Your task to perform on an android device: Search for seafood restaurants on Google Maps Image 0: 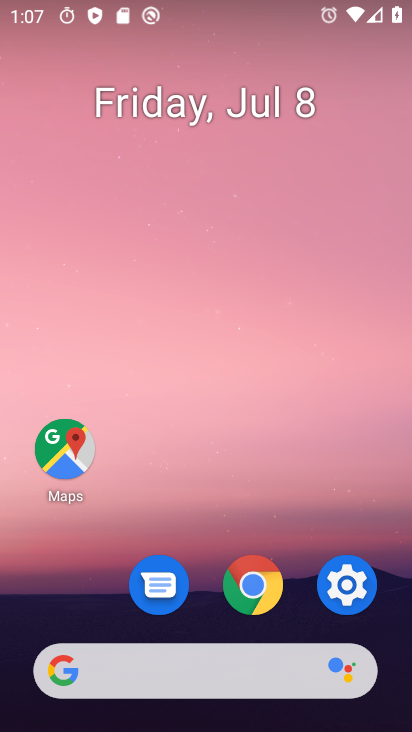
Step 0: click (87, 465)
Your task to perform on an android device: Search for seafood restaurants on Google Maps Image 1: 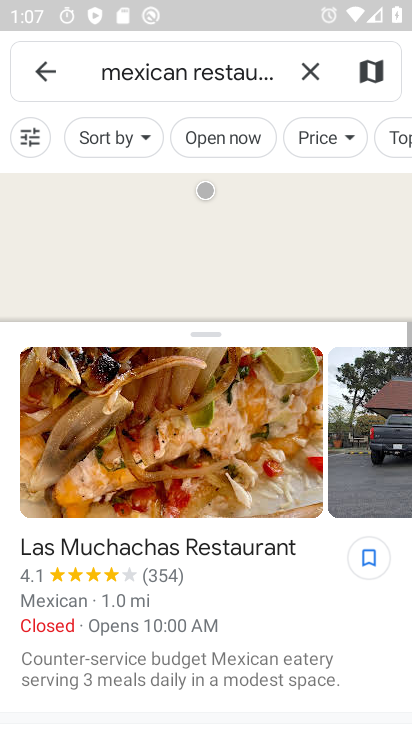
Step 1: click (304, 65)
Your task to perform on an android device: Search for seafood restaurants on Google Maps Image 2: 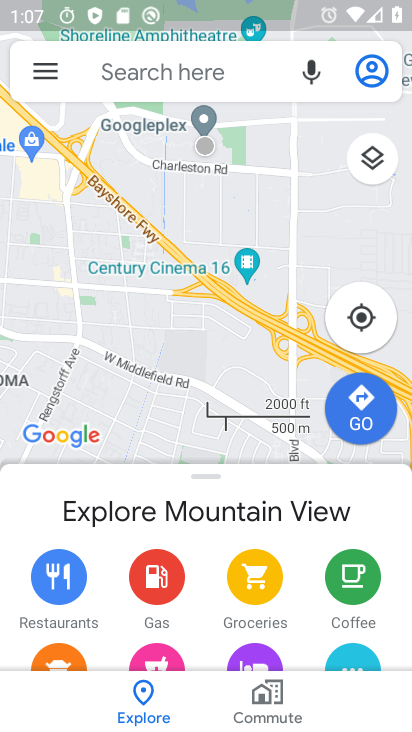
Step 2: click (130, 81)
Your task to perform on an android device: Search for seafood restaurants on Google Maps Image 3: 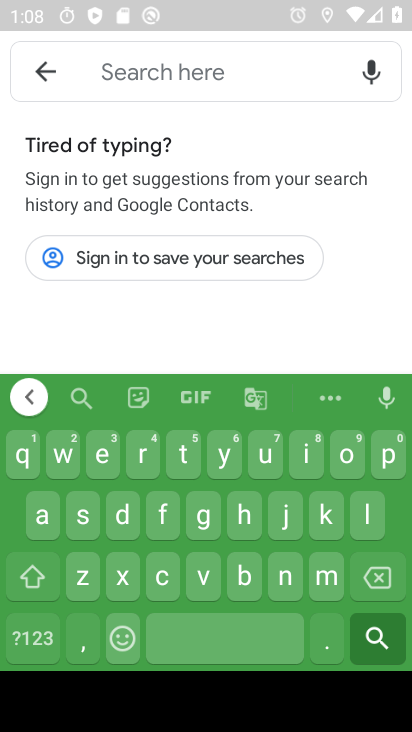
Step 3: click (83, 522)
Your task to perform on an android device: Search for seafood restaurants on Google Maps Image 4: 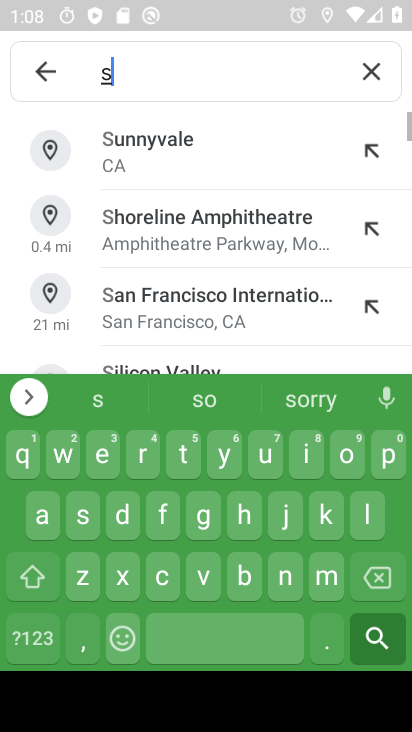
Step 4: click (95, 455)
Your task to perform on an android device: Search for seafood restaurants on Google Maps Image 5: 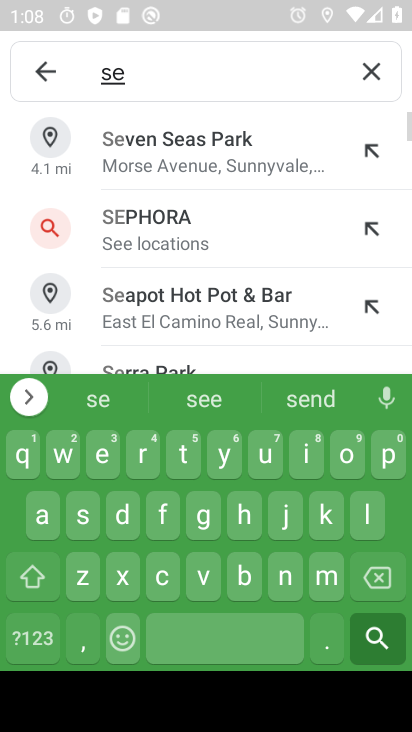
Step 5: click (32, 511)
Your task to perform on an android device: Search for seafood restaurants on Google Maps Image 6: 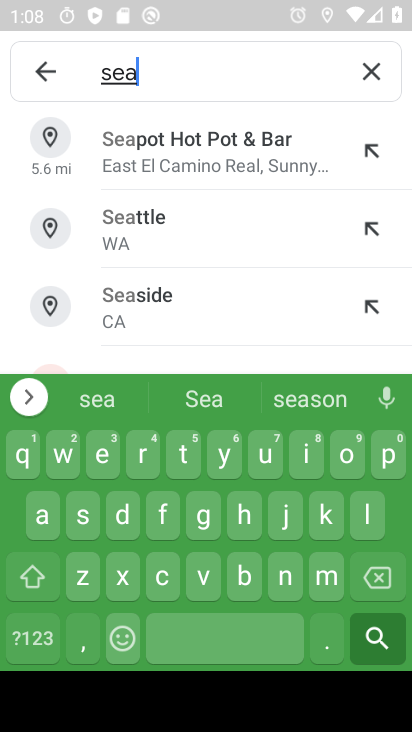
Step 6: click (160, 522)
Your task to perform on an android device: Search for seafood restaurants on Google Maps Image 7: 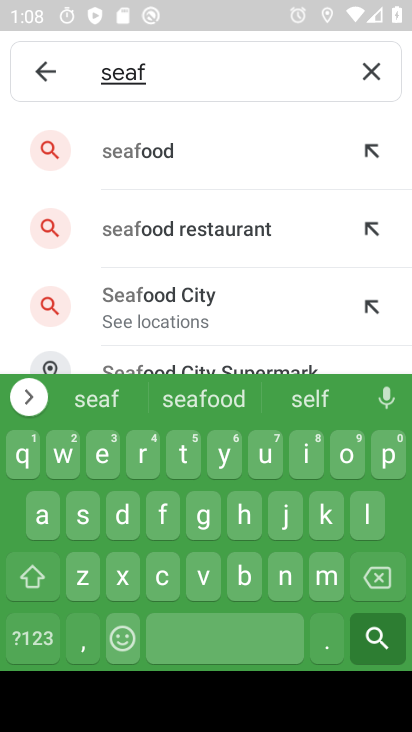
Step 7: click (176, 226)
Your task to perform on an android device: Search for seafood restaurants on Google Maps Image 8: 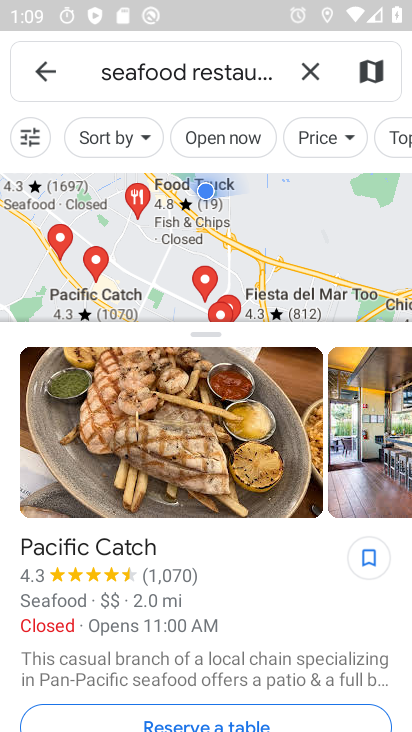
Step 8: task complete